Your task to perform on an android device: turn off location Image 0: 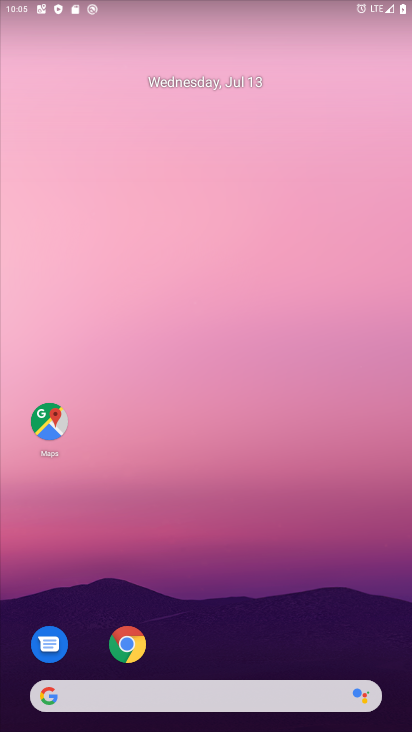
Step 0: drag from (217, 730) to (215, 130)
Your task to perform on an android device: turn off location Image 1: 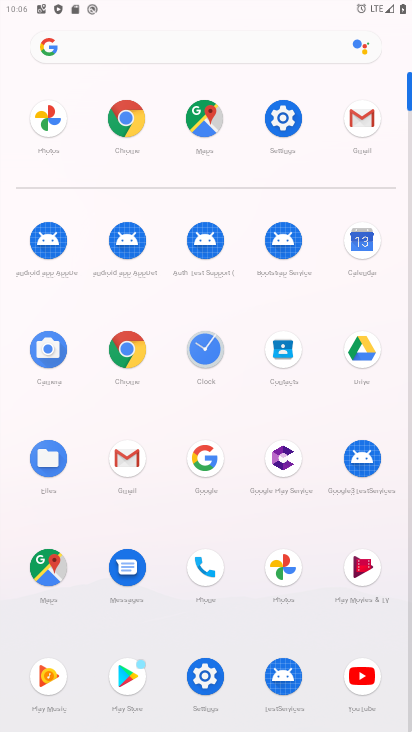
Step 1: click (278, 120)
Your task to perform on an android device: turn off location Image 2: 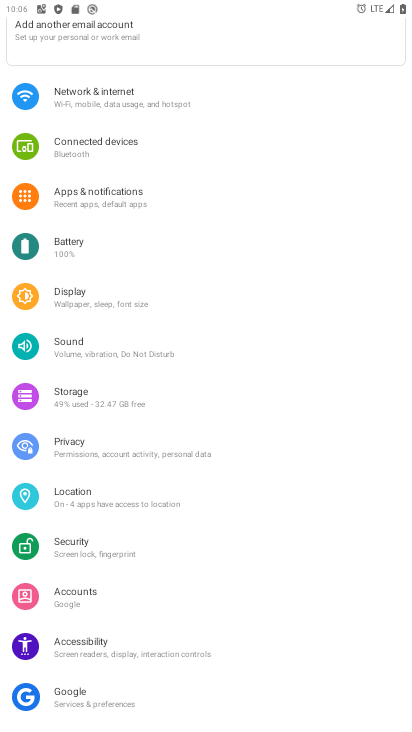
Step 2: click (71, 495)
Your task to perform on an android device: turn off location Image 3: 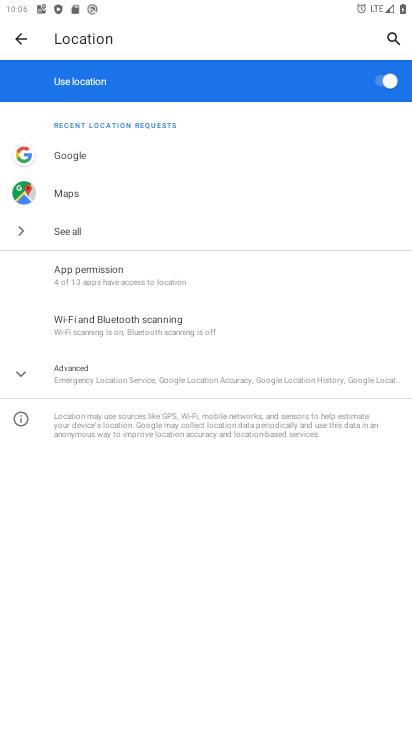
Step 3: click (380, 80)
Your task to perform on an android device: turn off location Image 4: 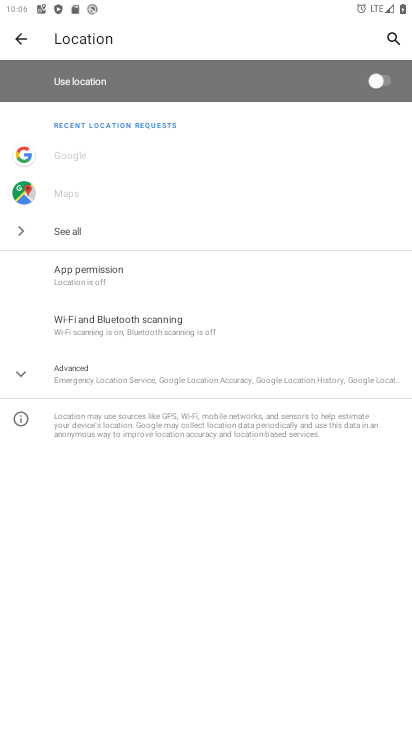
Step 4: task complete